Your task to perform on an android device: turn notification dots on Image 0: 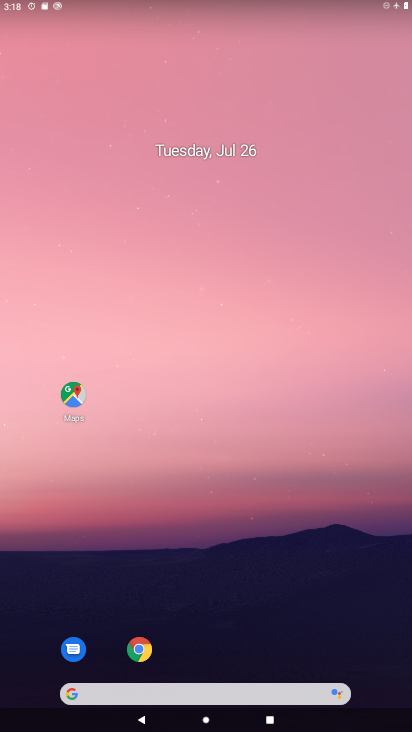
Step 0: drag from (389, 641) to (203, 90)
Your task to perform on an android device: turn notification dots on Image 1: 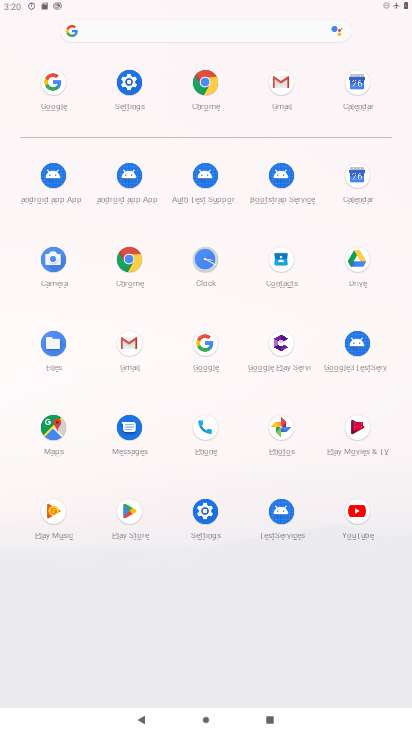
Step 1: click (206, 508)
Your task to perform on an android device: turn notification dots on Image 2: 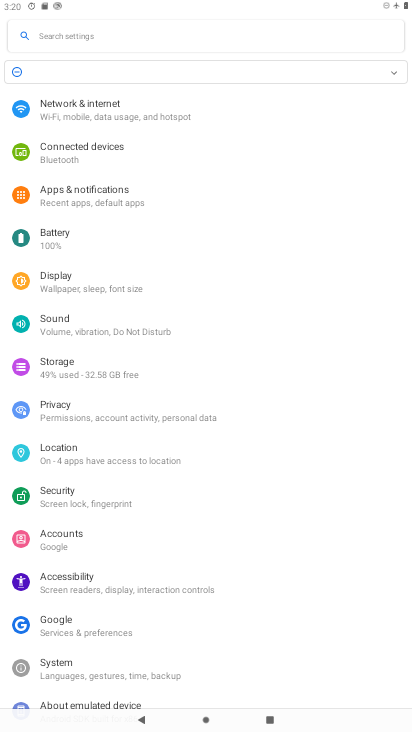
Step 2: click (127, 207)
Your task to perform on an android device: turn notification dots on Image 3: 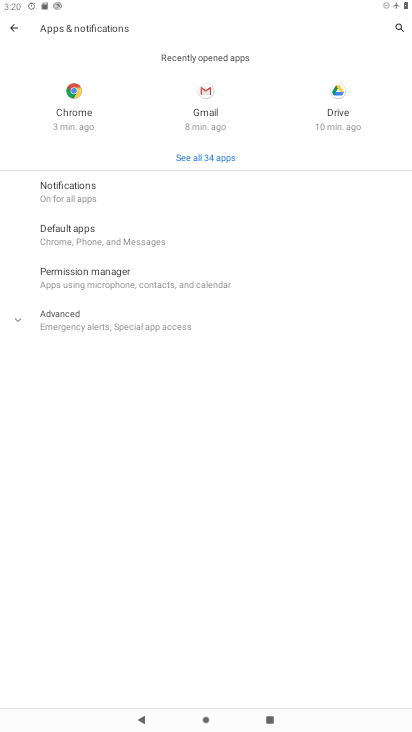
Step 3: click (105, 188)
Your task to perform on an android device: turn notification dots on Image 4: 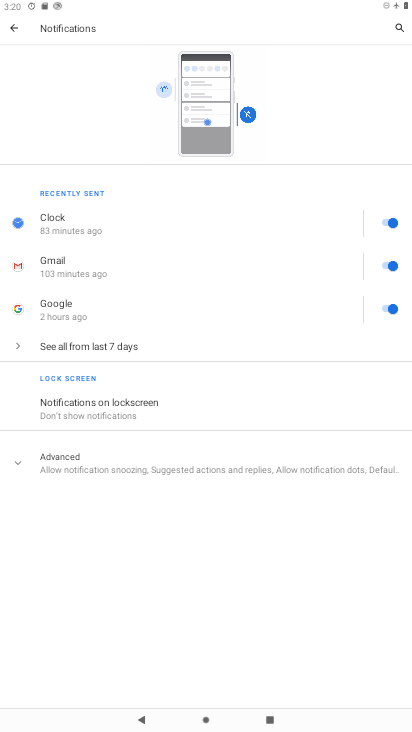
Step 4: click (95, 451)
Your task to perform on an android device: turn notification dots on Image 5: 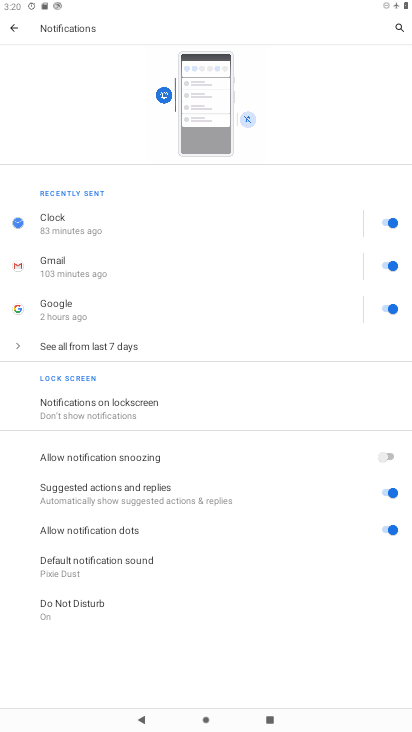
Step 5: task complete